Your task to perform on an android device: Open Google Chrome and click the shortcut for Amazon.com Image 0: 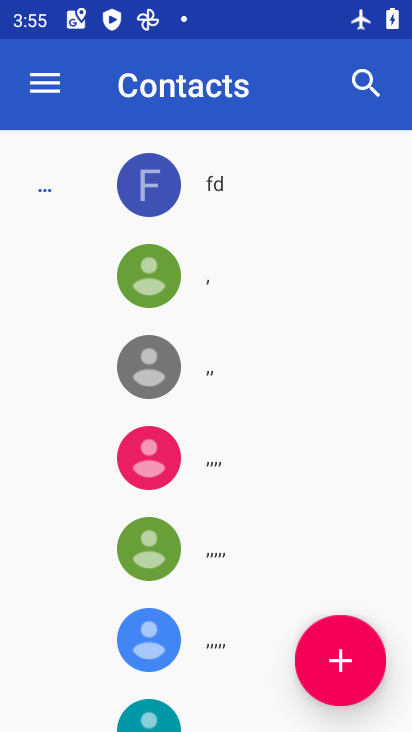
Step 0: press home button
Your task to perform on an android device: Open Google Chrome and click the shortcut for Amazon.com Image 1: 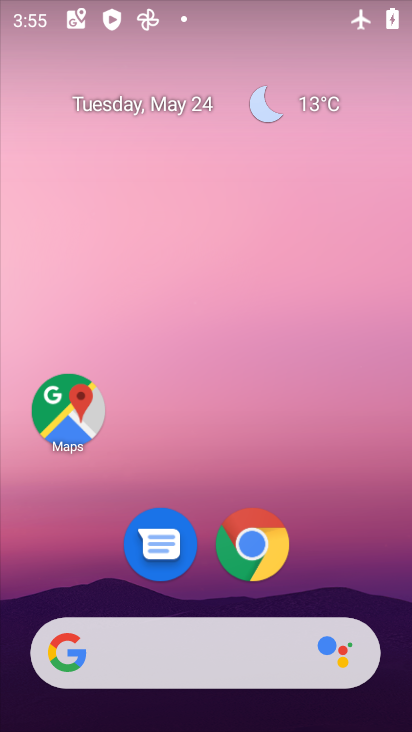
Step 1: click (249, 553)
Your task to perform on an android device: Open Google Chrome and click the shortcut for Amazon.com Image 2: 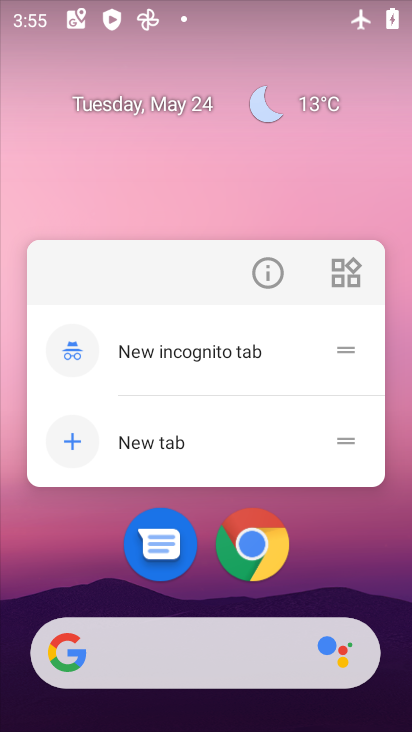
Step 2: click (249, 554)
Your task to perform on an android device: Open Google Chrome and click the shortcut for Amazon.com Image 3: 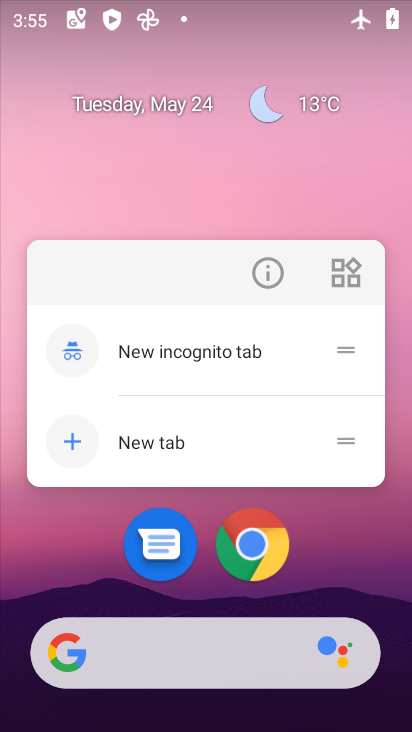
Step 3: click (249, 553)
Your task to perform on an android device: Open Google Chrome and click the shortcut for Amazon.com Image 4: 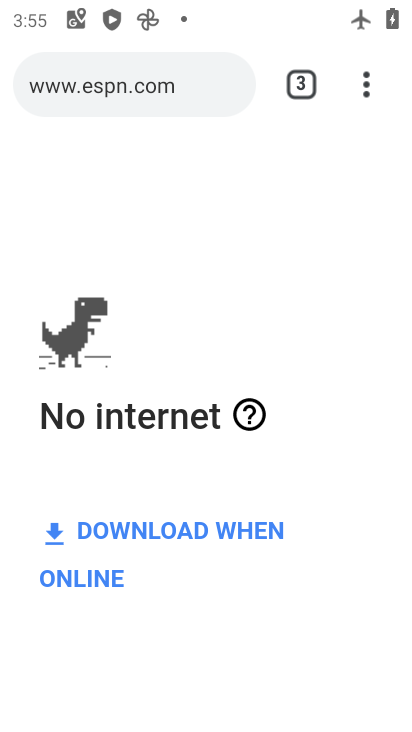
Step 4: click (173, 87)
Your task to perform on an android device: Open Google Chrome and click the shortcut for Amazon.com Image 5: 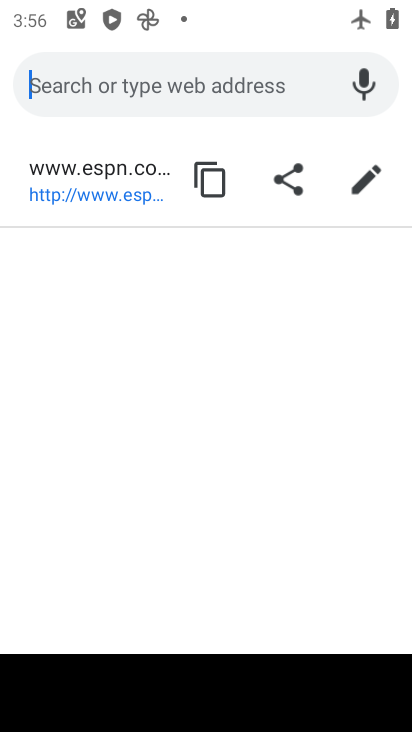
Step 5: type "amazon"
Your task to perform on an android device: Open Google Chrome and click the shortcut for Amazon.com Image 6: 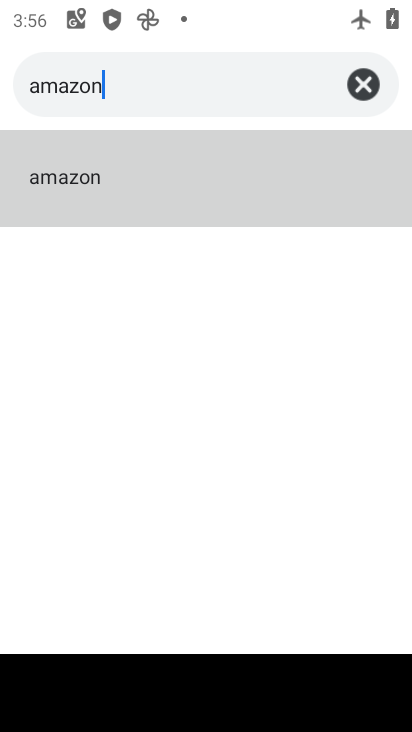
Step 6: click (158, 194)
Your task to perform on an android device: Open Google Chrome and click the shortcut for Amazon.com Image 7: 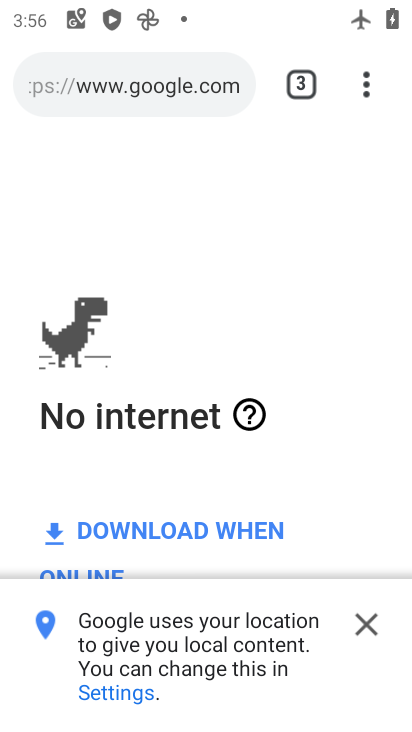
Step 7: task complete